Your task to perform on an android device: open app "TextNow: Call + Text Unlimited" (install if not already installed), go to login, and select forgot password Image 0: 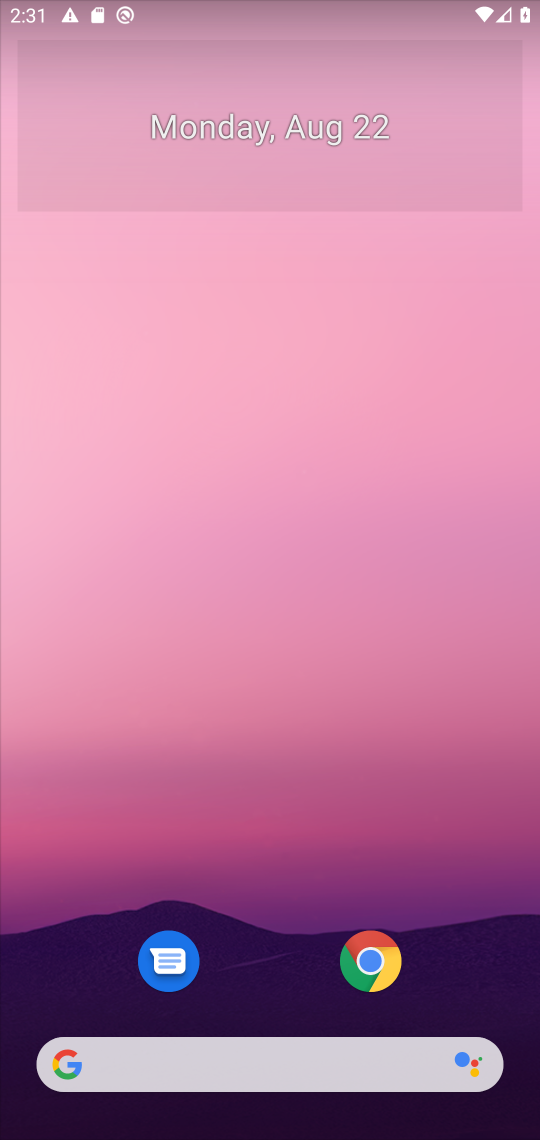
Step 0: drag from (478, 903) to (492, 217)
Your task to perform on an android device: open app "TextNow: Call + Text Unlimited" (install if not already installed), go to login, and select forgot password Image 1: 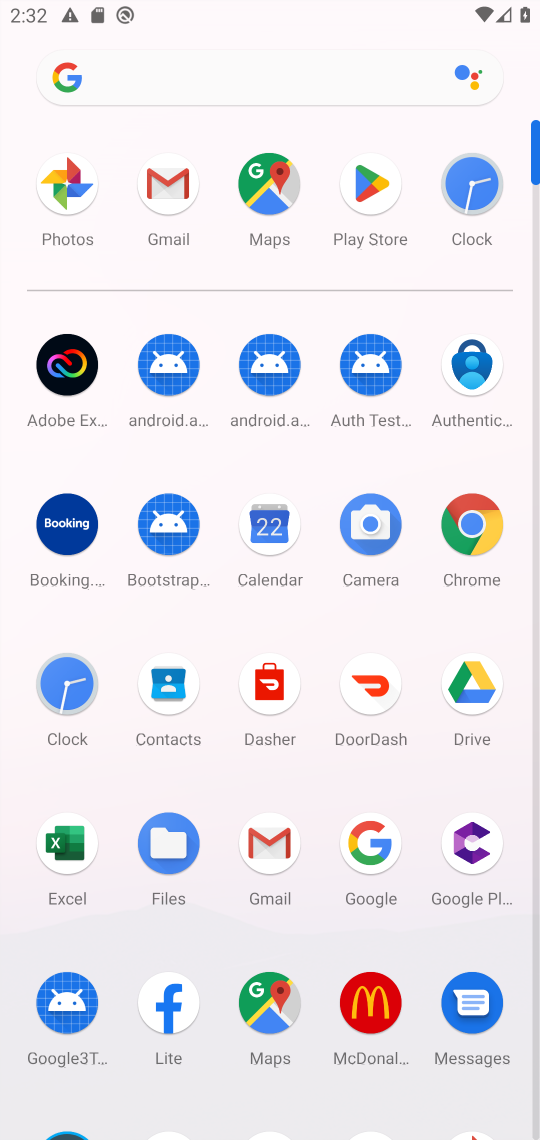
Step 1: click (374, 177)
Your task to perform on an android device: open app "TextNow: Call + Text Unlimited" (install if not already installed), go to login, and select forgot password Image 2: 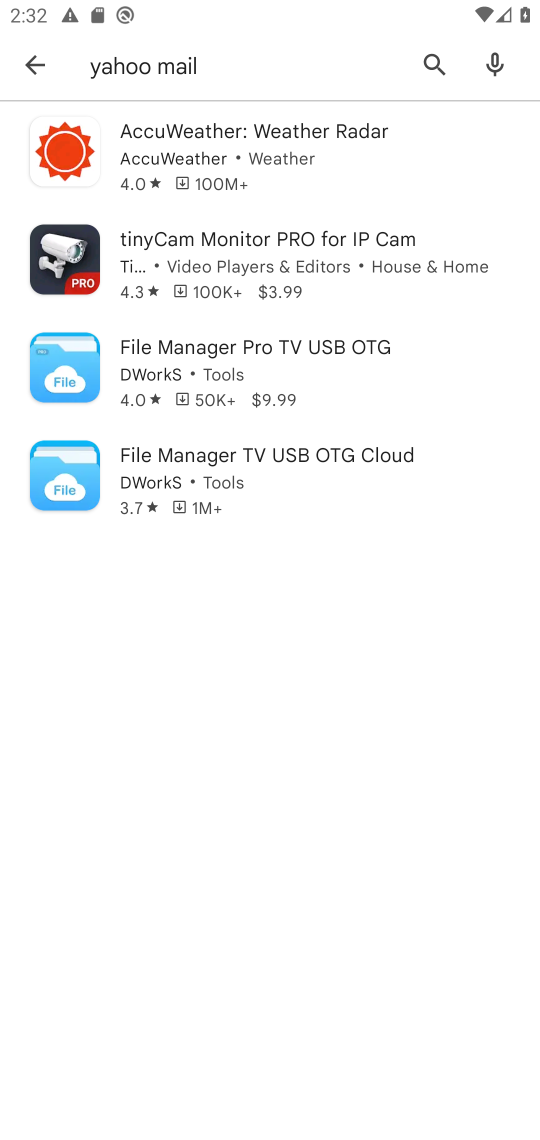
Step 2: press back button
Your task to perform on an android device: open app "TextNow: Call + Text Unlimited" (install if not already installed), go to login, and select forgot password Image 3: 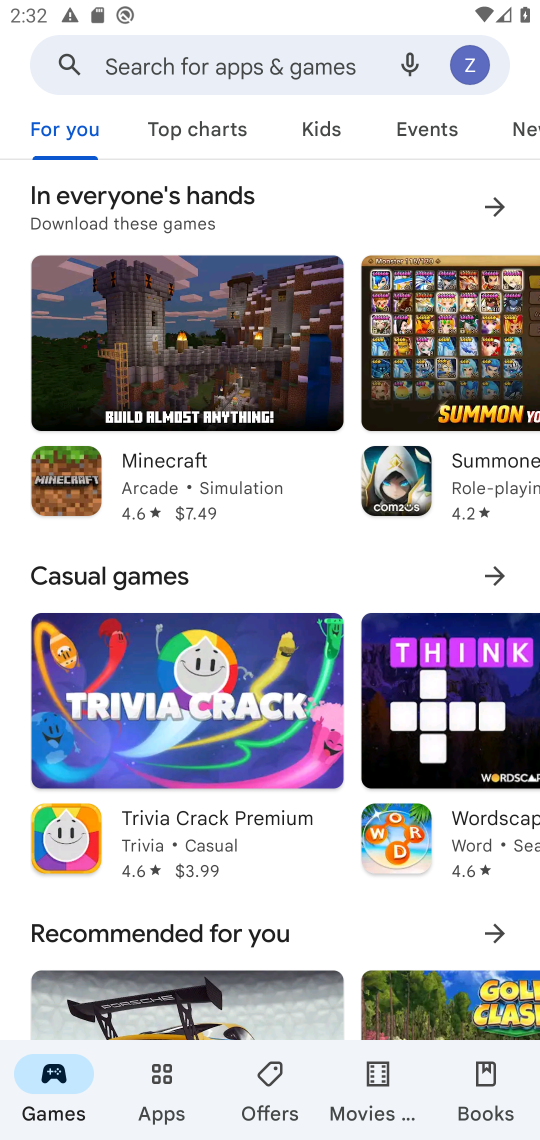
Step 3: click (255, 70)
Your task to perform on an android device: open app "TextNow: Call + Text Unlimited" (install if not already installed), go to login, and select forgot password Image 4: 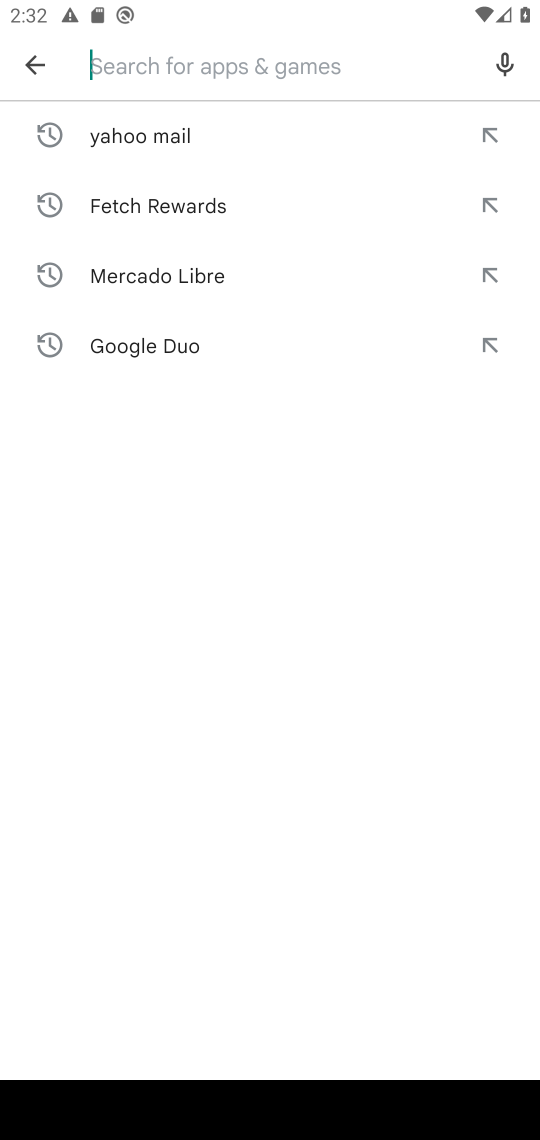
Step 4: type "TextNow: Call + Text Unlimited"
Your task to perform on an android device: open app "TextNow: Call + Text Unlimited" (install if not already installed), go to login, and select forgot password Image 5: 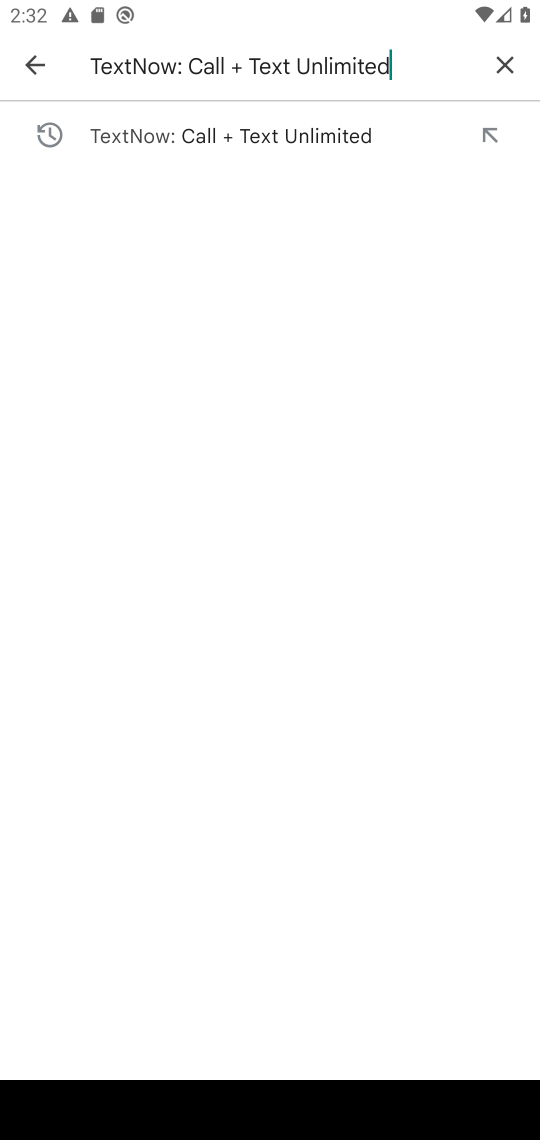
Step 5: press enter
Your task to perform on an android device: open app "TextNow: Call + Text Unlimited" (install if not already installed), go to login, and select forgot password Image 6: 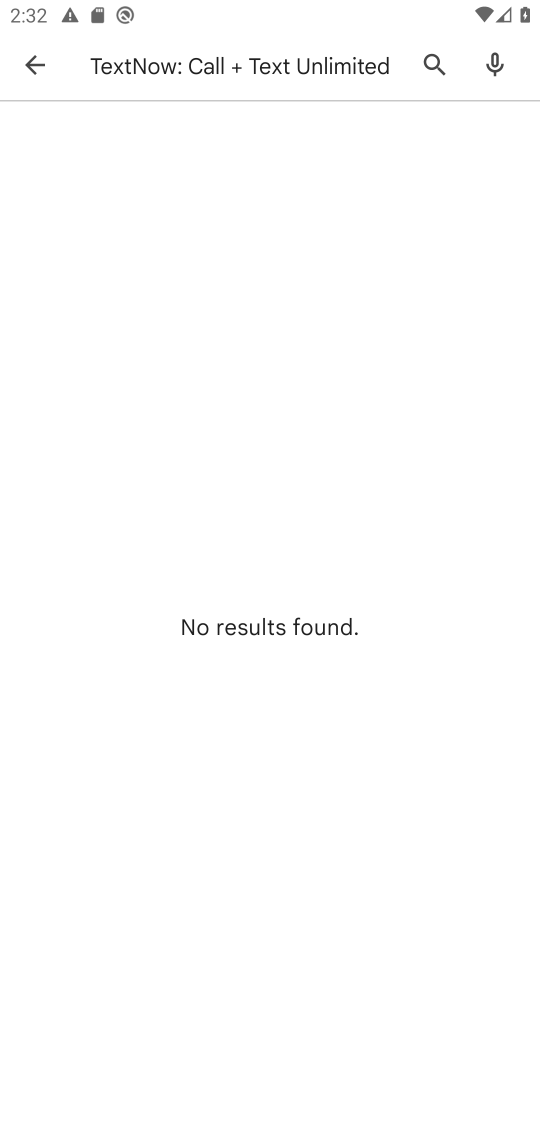
Step 6: task complete